Your task to perform on an android device: Turn off the flashlight Image 0: 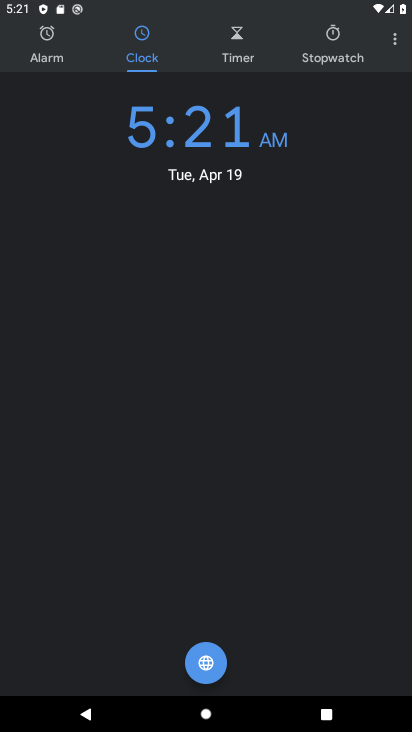
Step 0: press home button
Your task to perform on an android device: Turn off the flashlight Image 1: 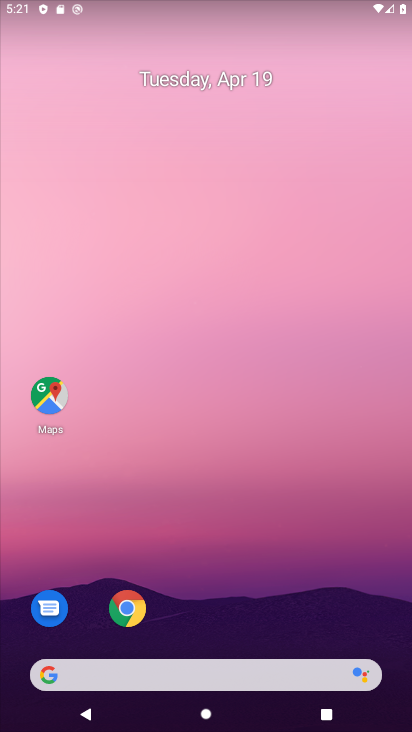
Step 1: task complete